Your task to perform on an android device: open app "ColorNote Notepad Notes" Image 0: 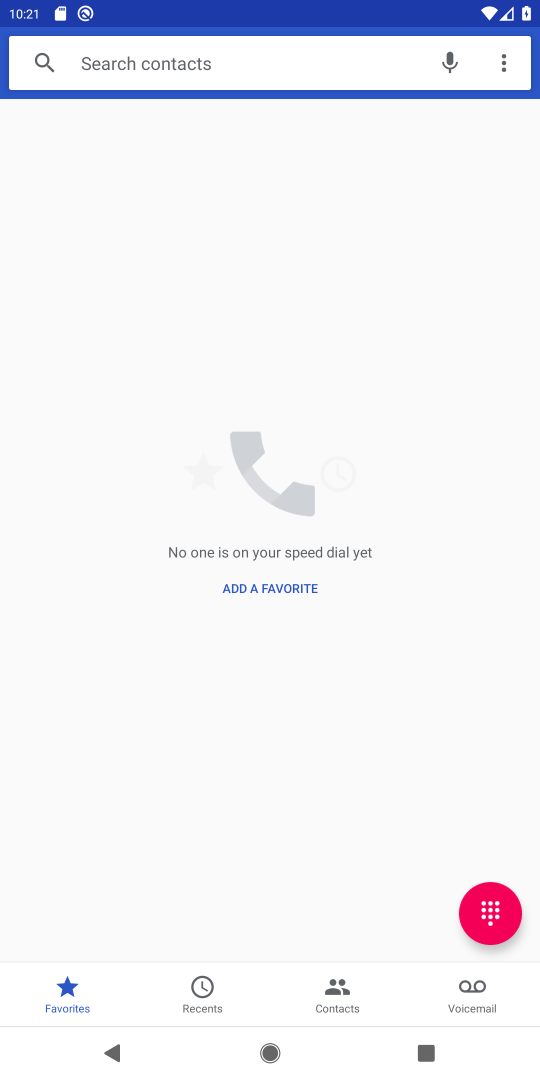
Step 0: press home button
Your task to perform on an android device: open app "ColorNote Notepad Notes" Image 1: 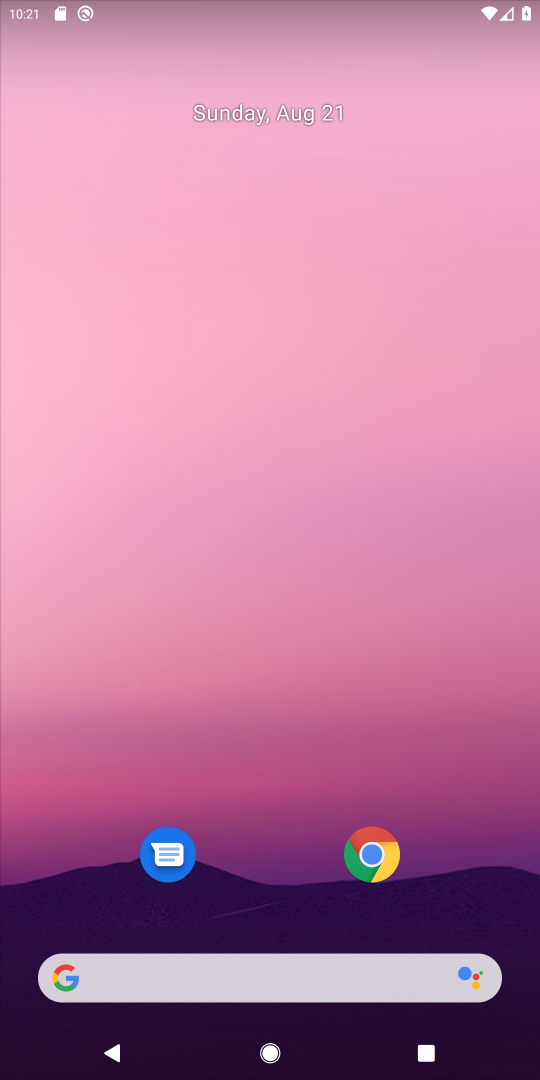
Step 1: drag from (234, 903) to (176, 113)
Your task to perform on an android device: open app "ColorNote Notepad Notes" Image 2: 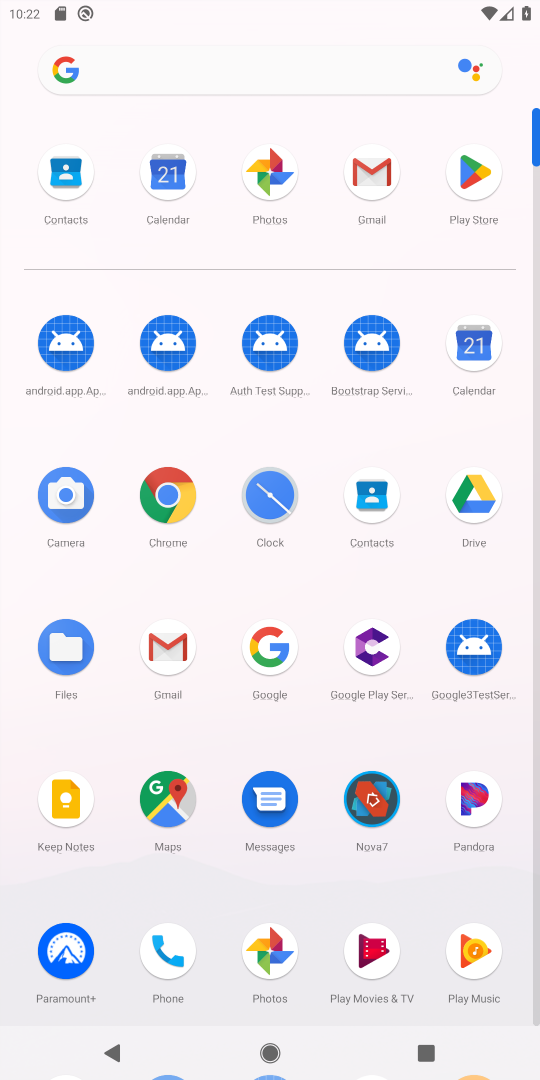
Step 2: click (483, 201)
Your task to perform on an android device: open app "ColorNote Notepad Notes" Image 3: 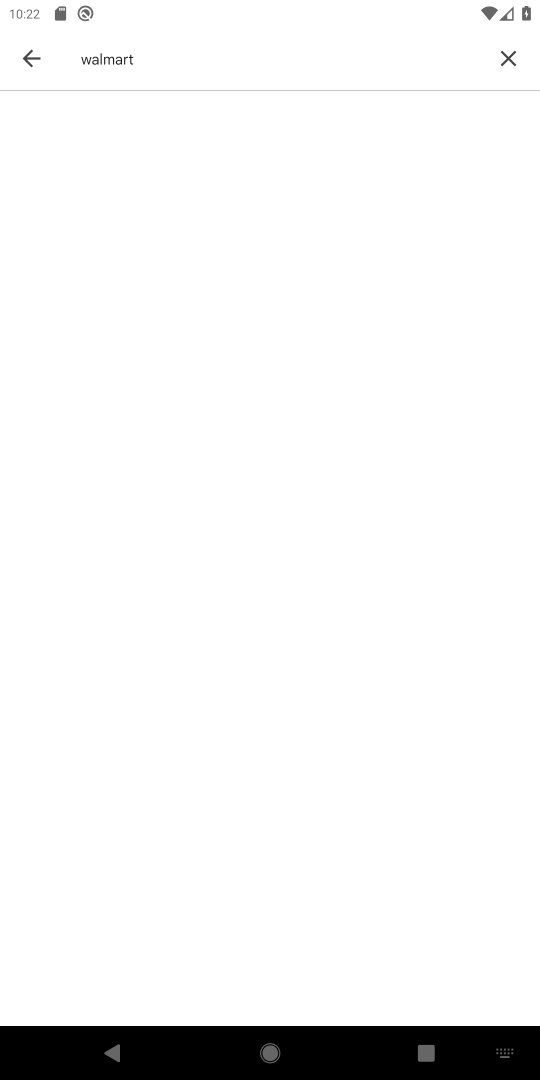
Step 3: task complete